Your task to perform on an android device: turn notification dots off Image 0: 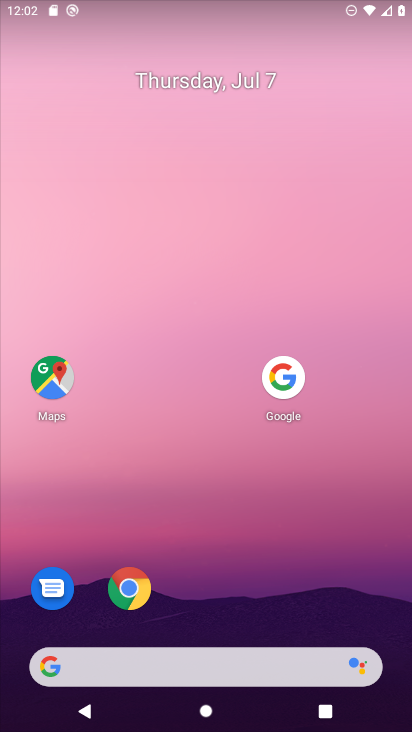
Step 0: drag from (215, 662) to (248, 76)
Your task to perform on an android device: turn notification dots off Image 1: 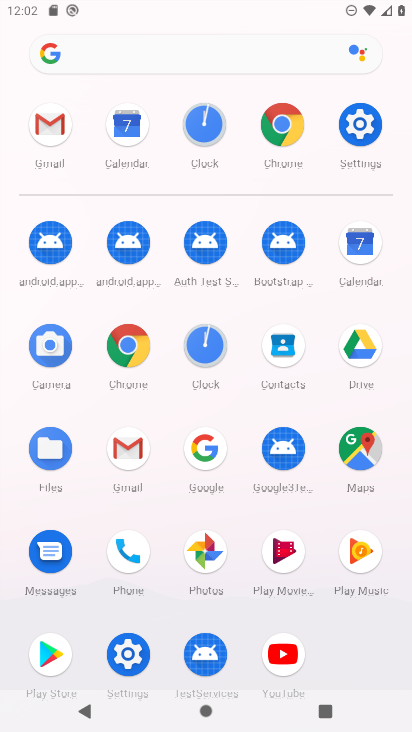
Step 1: click (367, 122)
Your task to perform on an android device: turn notification dots off Image 2: 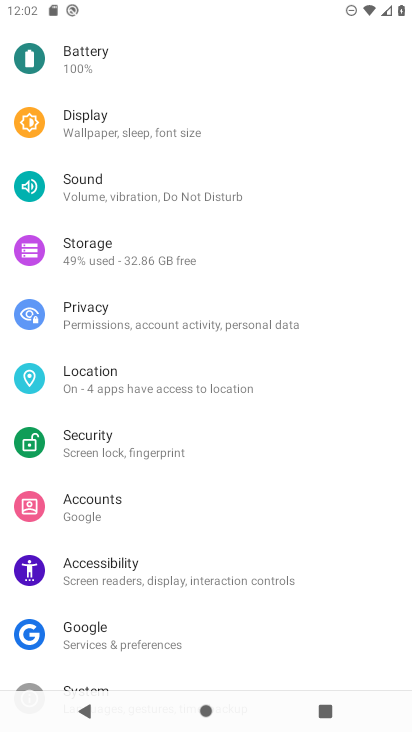
Step 2: drag from (279, 166) to (236, 610)
Your task to perform on an android device: turn notification dots off Image 3: 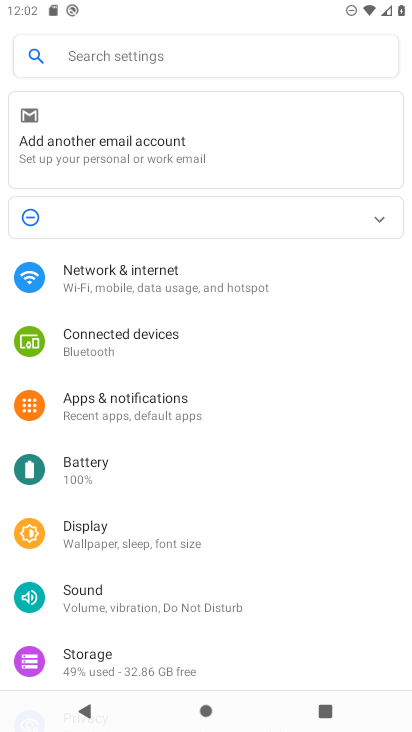
Step 3: click (130, 399)
Your task to perform on an android device: turn notification dots off Image 4: 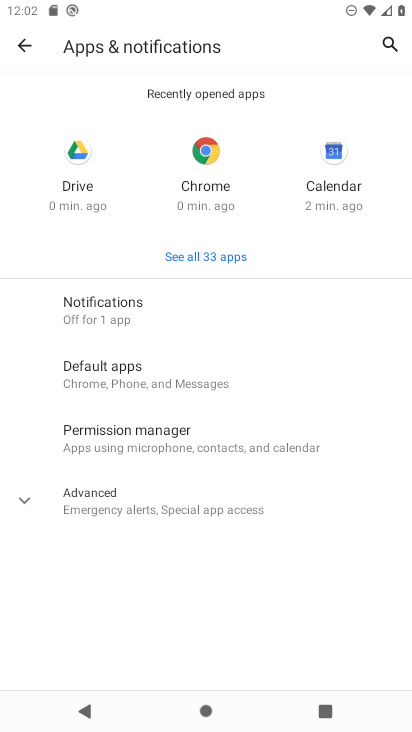
Step 4: click (101, 500)
Your task to perform on an android device: turn notification dots off Image 5: 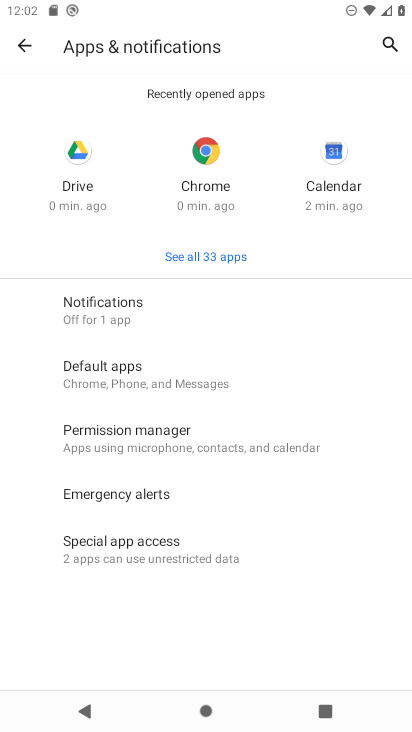
Step 5: drag from (154, 631) to (219, 435)
Your task to perform on an android device: turn notification dots off Image 6: 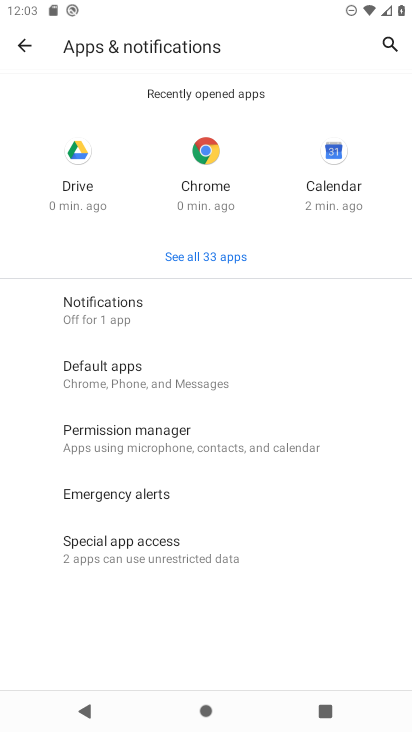
Step 6: drag from (223, 520) to (345, 266)
Your task to perform on an android device: turn notification dots off Image 7: 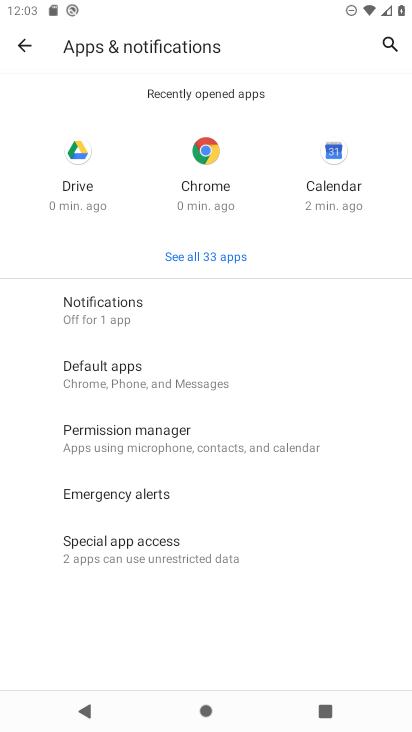
Step 7: click (120, 314)
Your task to perform on an android device: turn notification dots off Image 8: 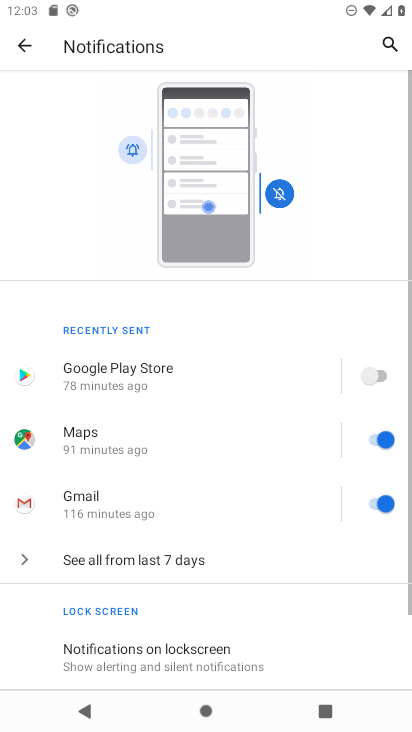
Step 8: drag from (198, 657) to (385, 229)
Your task to perform on an android device: turn notification dots off Image 9: 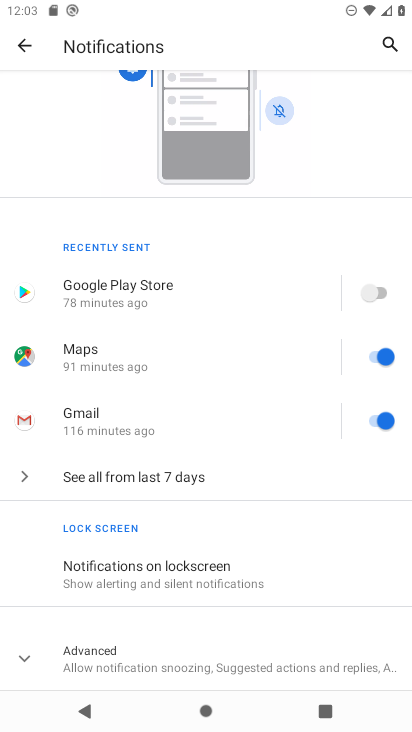
Step 9: click (212, 645)
Your task to perform on an android device: turn notification dots off Image 10: 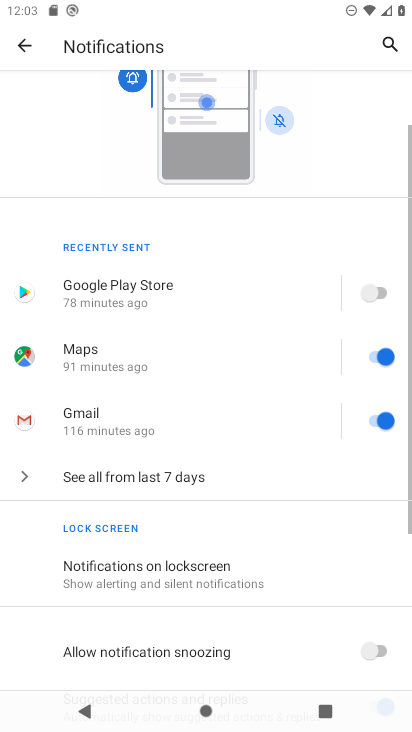
Step 10: task complete